Your task to perform on an android device: turn on airplane mode Image 0: 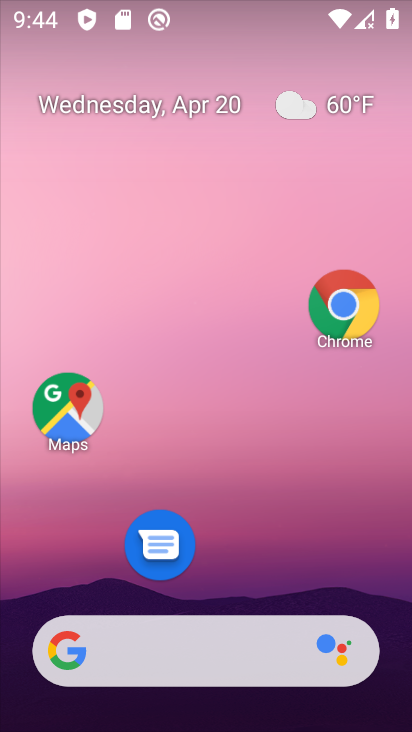
Step 0: drag from (298, 694) to (309, 297)
Your task to perform on an android device: turn on airplane mode Image 1: 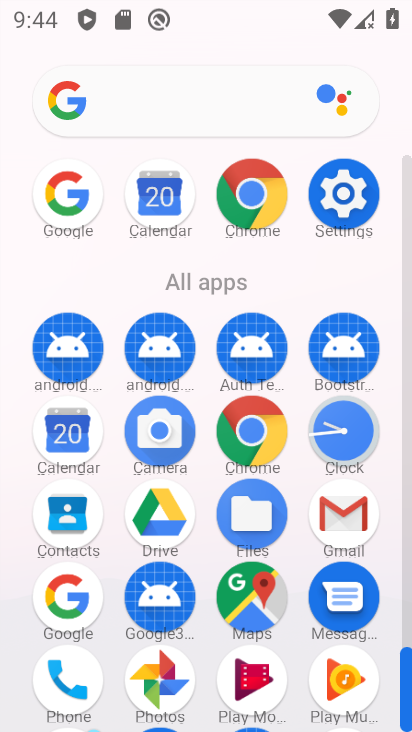
Step 1: click (345, 208)
Your task to perform on an android device: turn on airplane mode Image 2: 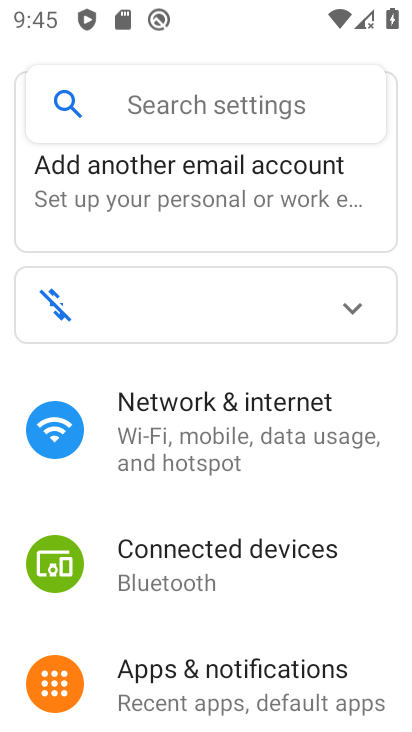
Step 2: drag from (213, 504) to (230, 298)
Your task to perform on an android device: turn on airplane mode Image 3: 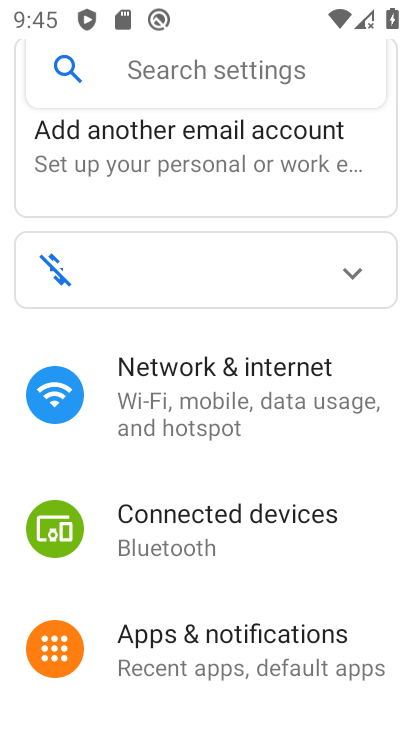
Step 3: click (213, 411)
Your task to perform on an android device: turn on airplane mode Image 4: 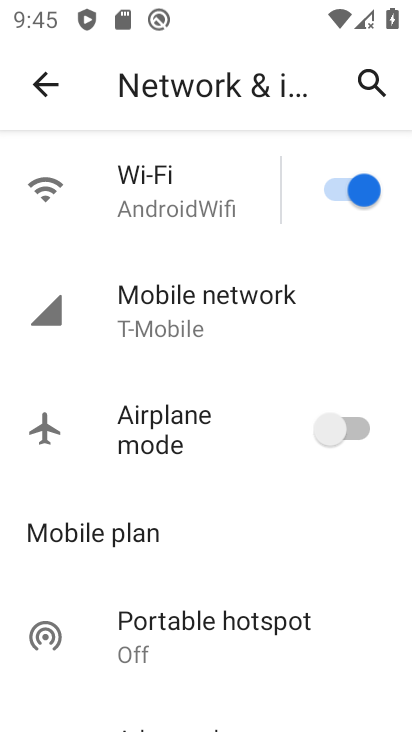
Step 4: click (220, 420)
Your task to perform on an android device: turn on airplane mode Image 5: 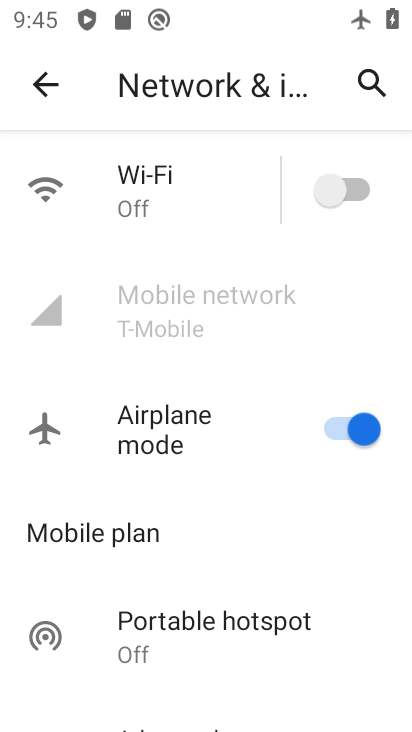
Step 5: task complete